Your task to perform on an android device: Open Amazon Image 0: 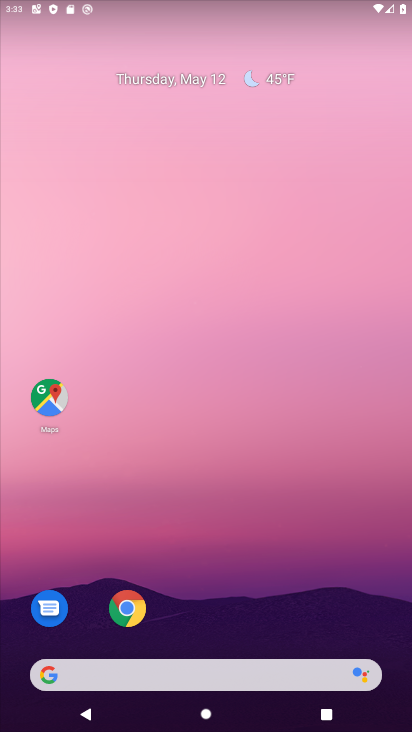
Step 0: click (115, 601)
Your task to perform on an android device: Open Amazon Image 1: 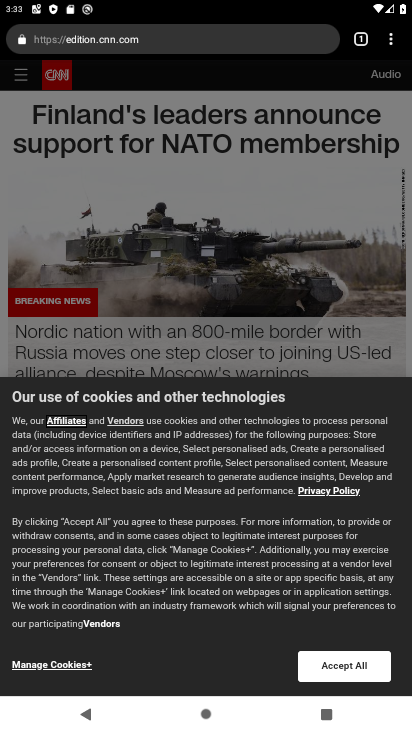
Step 1: click (365, 32)
Your task to perform on an android device: Open Amazon Image 2: 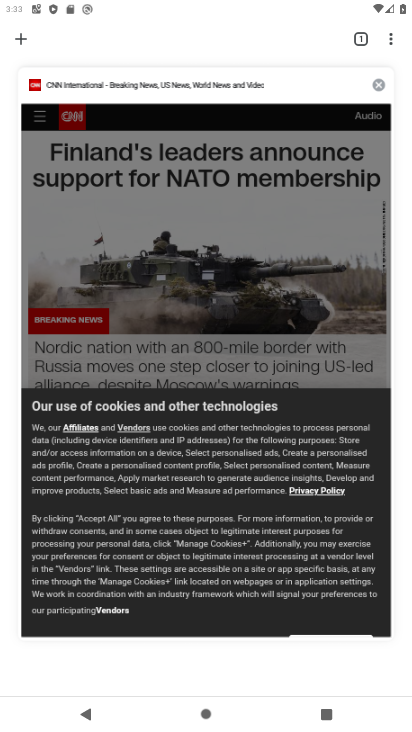
Step 2: click (5, 37)
Your task to perform on an android device: Open Amazon Image 3: 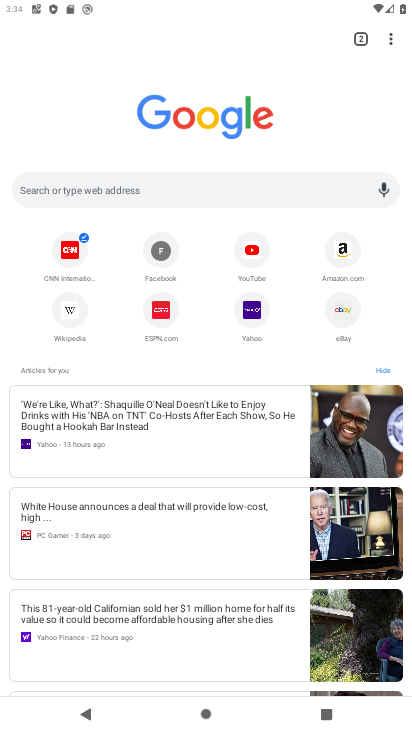
Step 3: click (334, 256)
Your task to perform on an android device: Open Amazon Image 4: 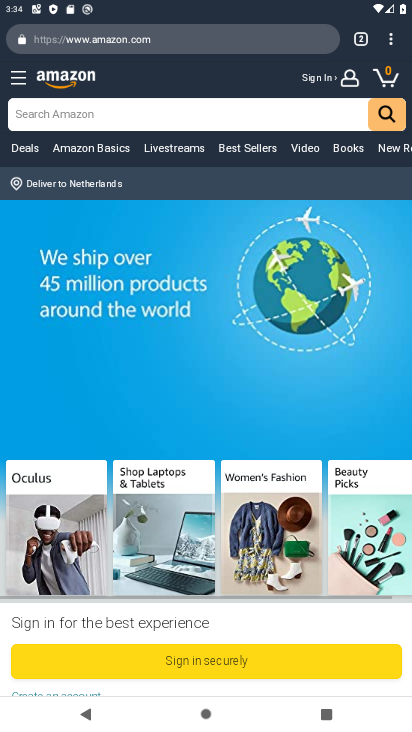
Step 4: task complete